Your task to perform on an android device: turn on improve location accuracy Image 0: 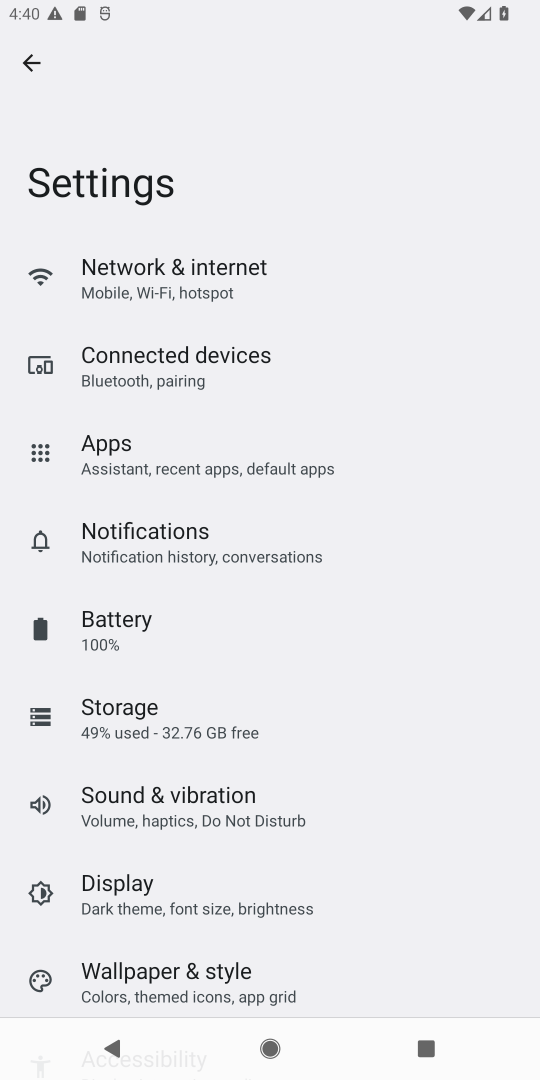
Step 0: drag from (294, 897) to (387, 253)
Your task to perform on an android device: turn on improve location accuracy Image 1: 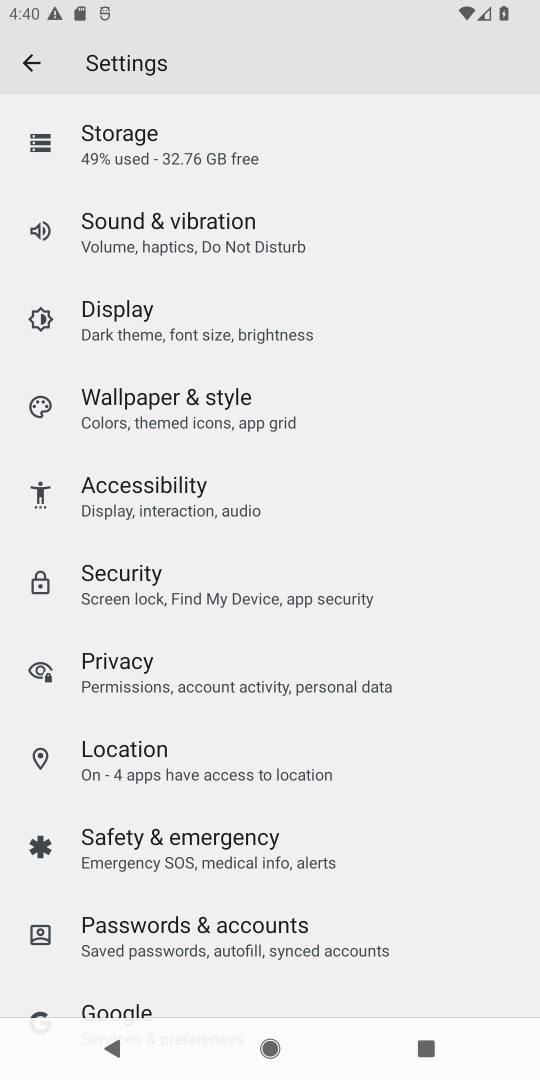
Step 1: click (146, 767)
Your task to perform on an android device: turn on improve location accuracy Image 2: 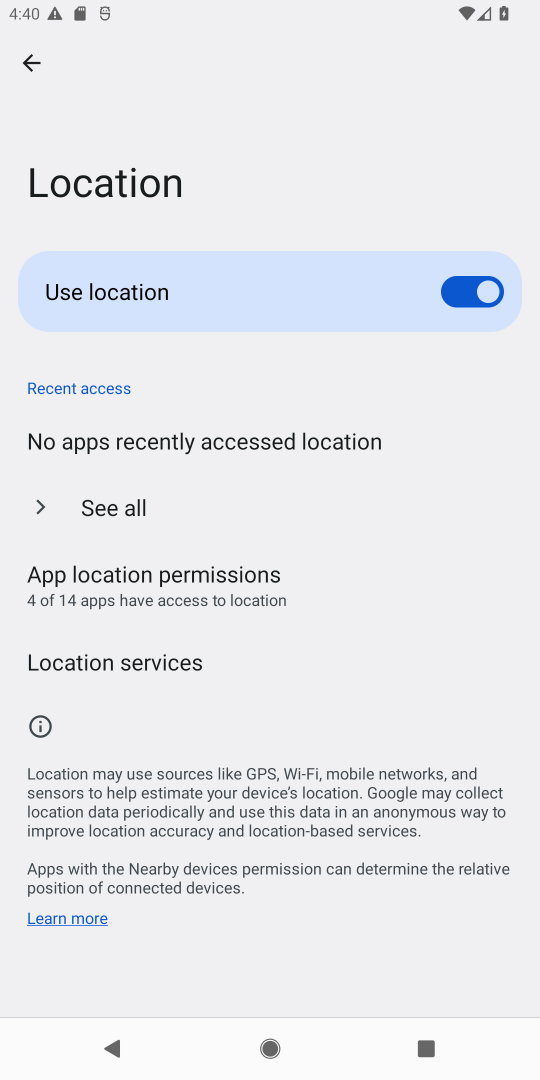
Step 2: click (112, 667)
Your task to perform on an android device: turn on improve location accuracy Image 3: 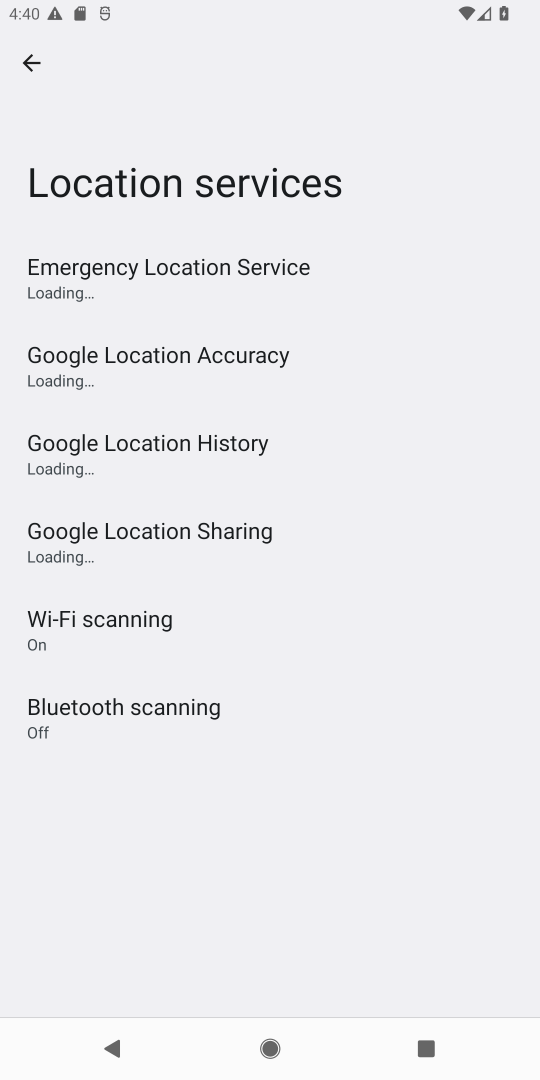
Step 3: click (164, 359)
Your task to perform on an android device: turn on improve location accuracy Image 4: 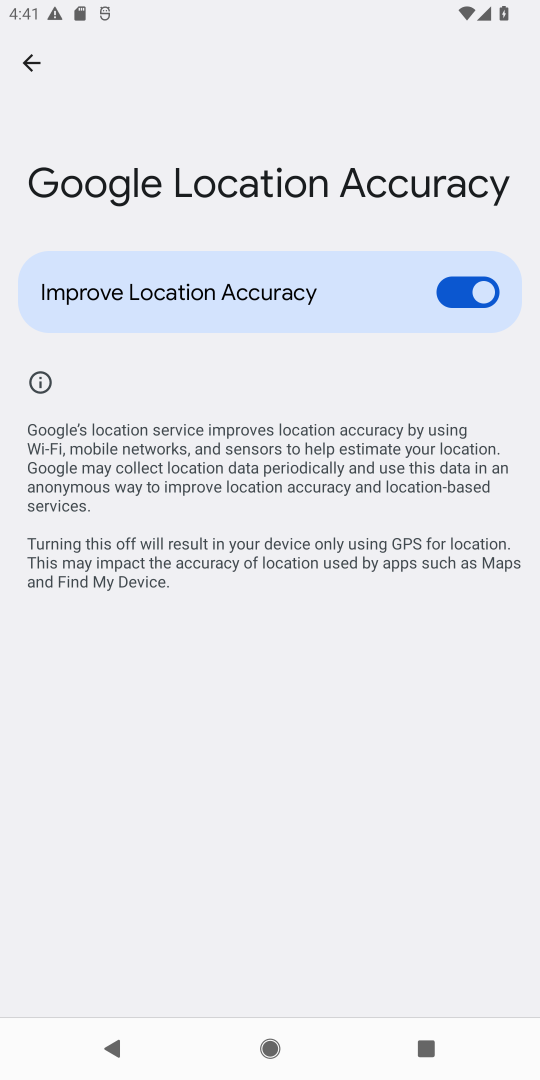
Step 4: task complete